Your task to perform on an android device: View the shopping cart on ebay. Add "razer blackwidow" to the cart on ebay, then select checkout. Image 0: 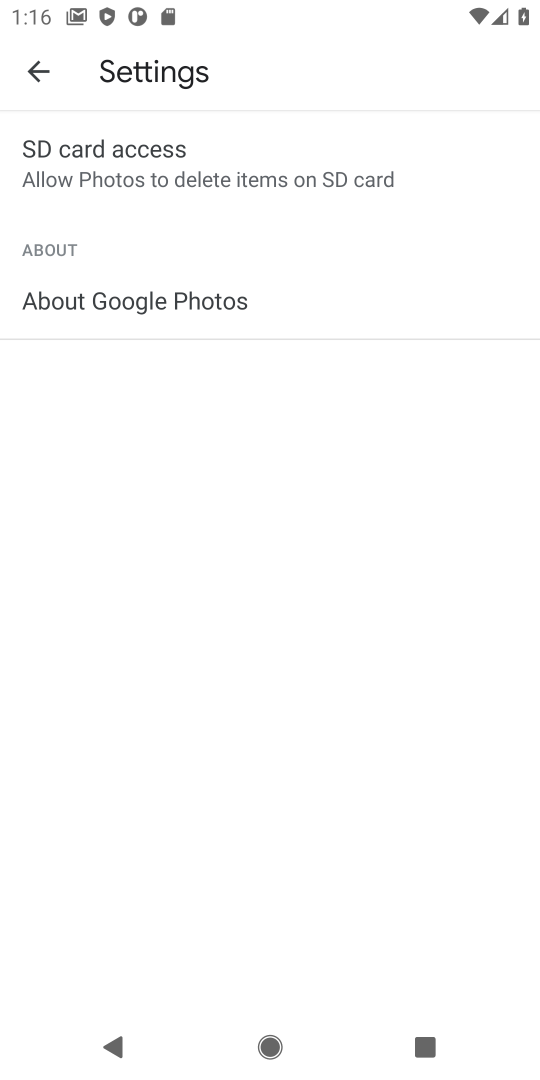
Step 0: press home button
Your task to perform on an android device: View the shopping cart on ebay. Add "razer blackwidow" to the cart on ebay, then select checkout. Image 1: 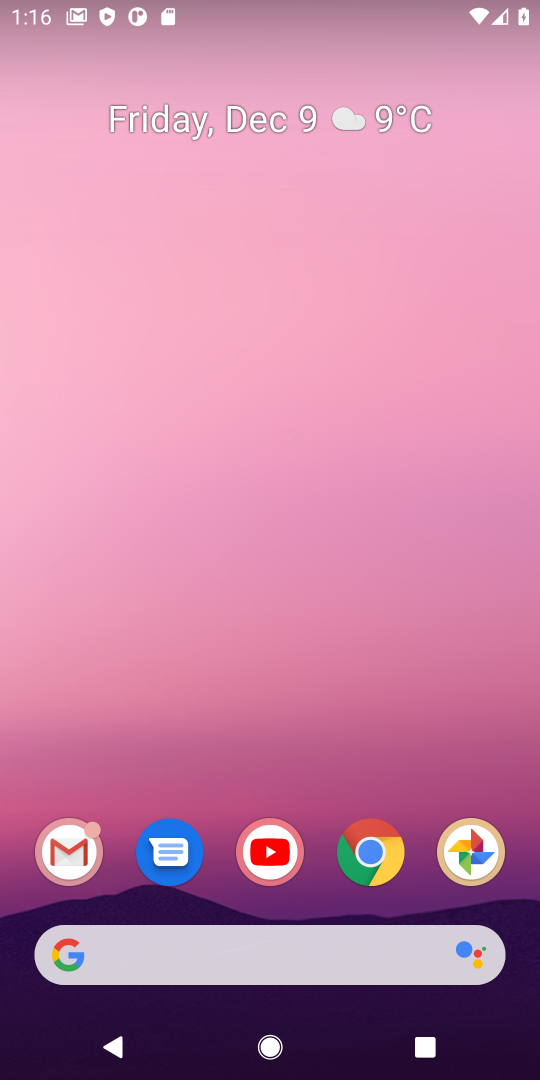
Step 1: click (372, 859)
Your task to perform on an android device: View the shopping cart on ebay. Add "razer blackwidow" to the cart on ebay, then select checkout. Image 2: 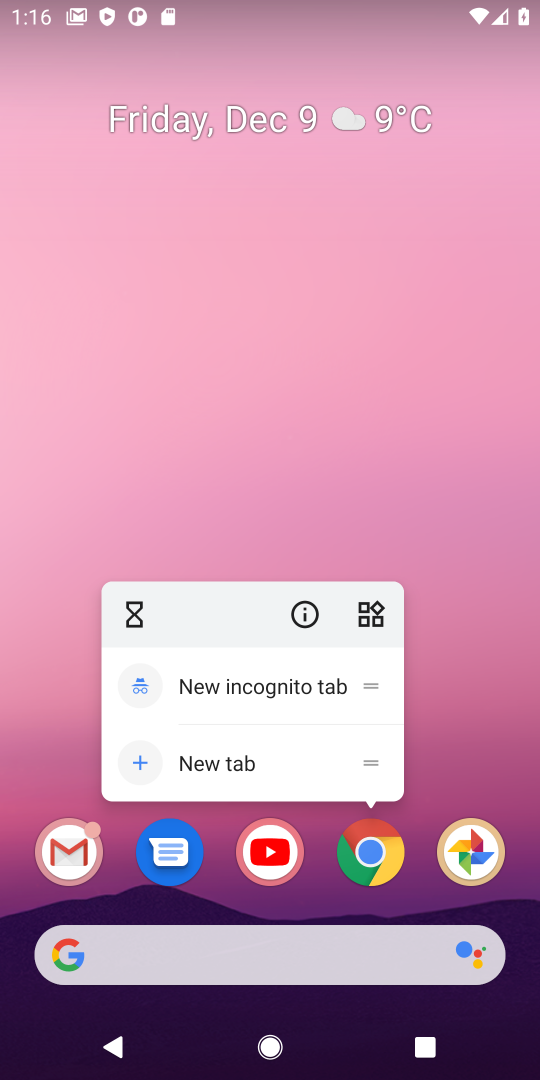
Step 2: click (372, 859)
Your task to perform on an android device: View the shopping cart on ebay. Add "razer blackwidow" to the cart on ebay, then select checkout. Image 3: 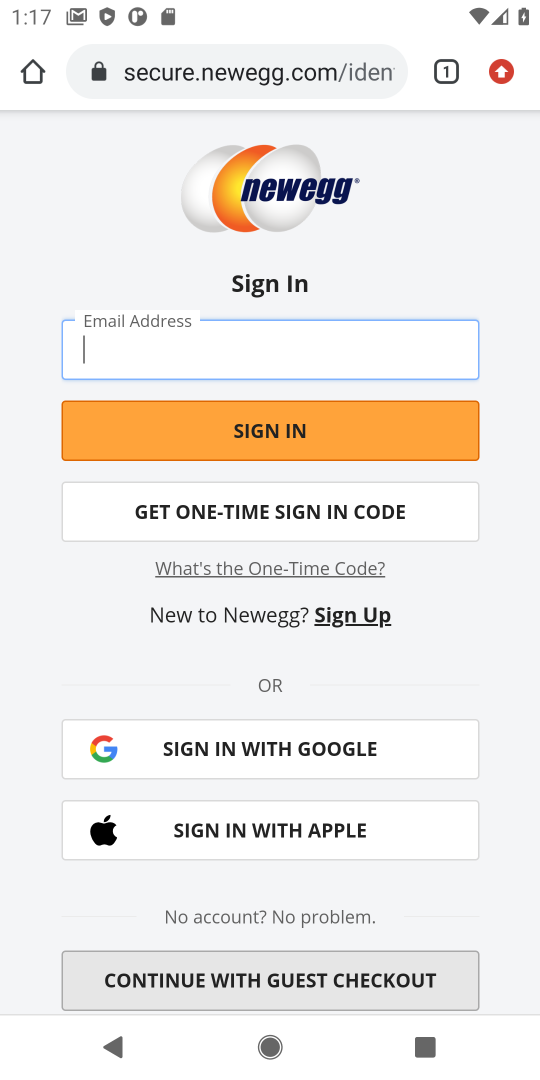
Step 3: click (202, 88)
Your task to perform on an android device: View the shopping cart on ebay. Add "razer blackwidow" to the cart on ebay, then select checkout. Image 4: 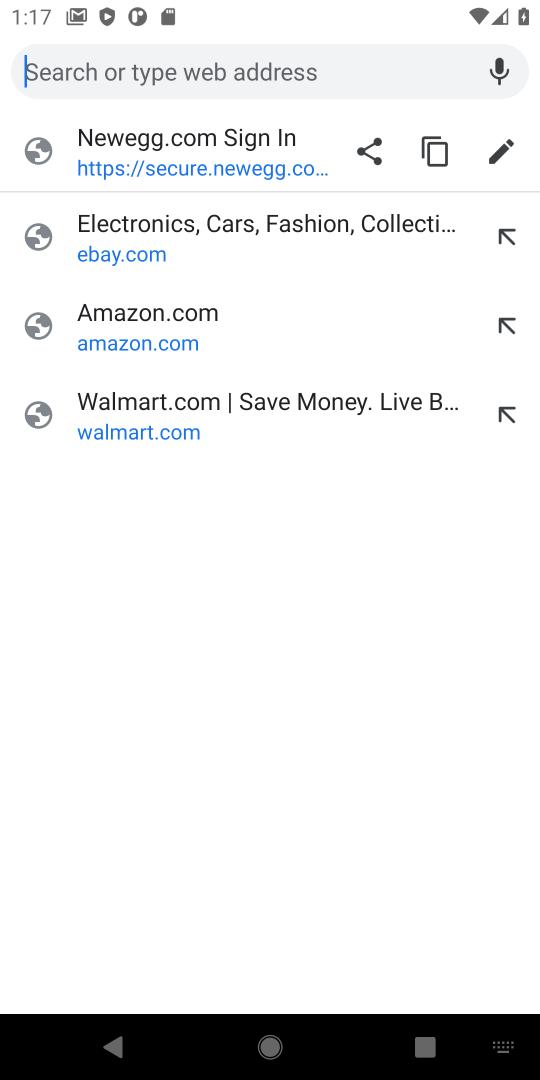
Step 4: type "ebay"
Your task to perform on an android device: View the shopping cart on ebay. Add "razer blackwidow" to the cart on ebay, then select checkout. Image 5: 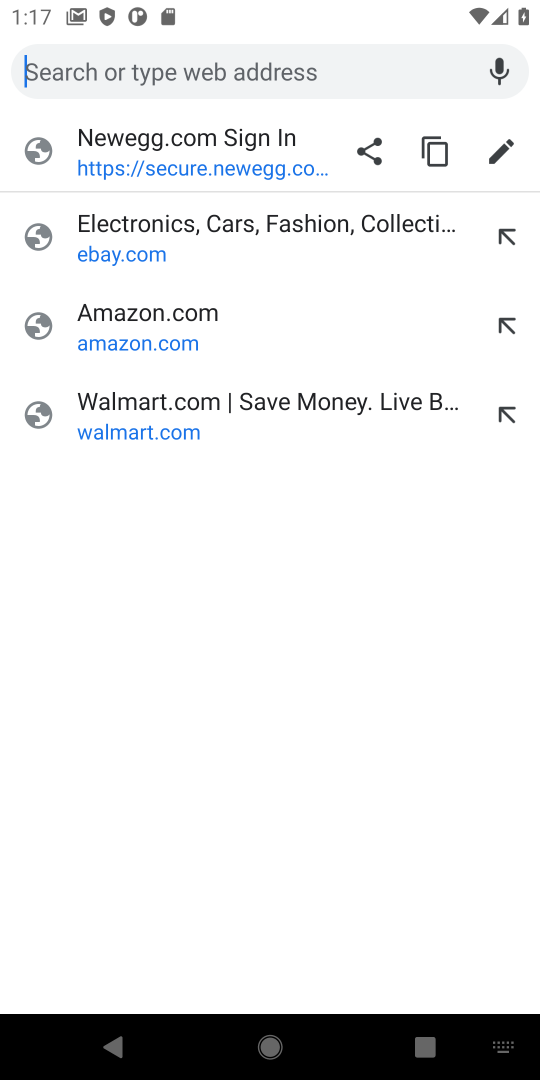
Step 5: click (137, 255)
Your task to perform on an android device: View the shopping cart on ebay. Add "razer blackwidow" to the cart on ebay, then select checkout. Image 6: 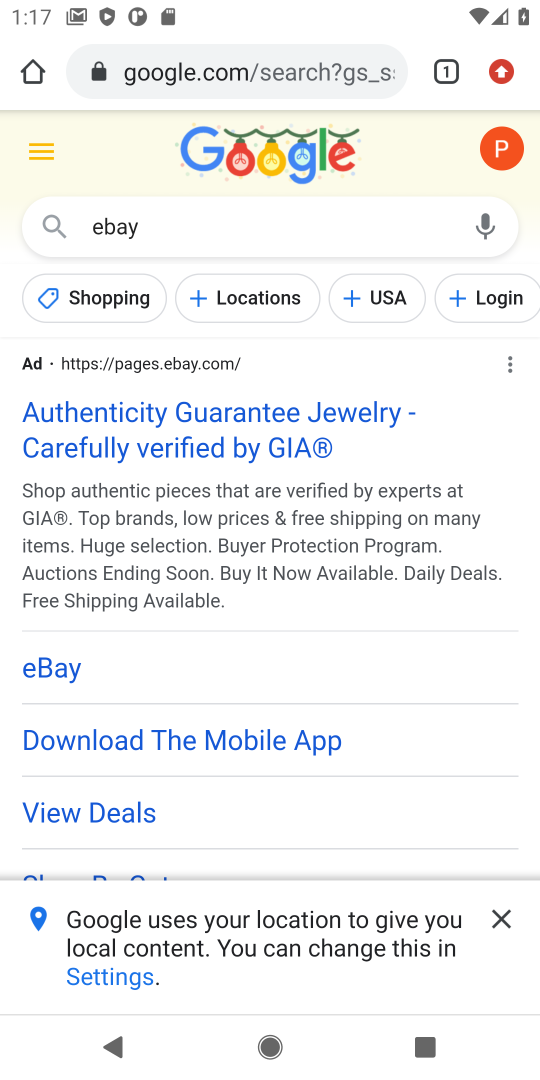
Step 6: drag from (336, 718) to (354, 365)
Your task to perform on an android device: View the shopping cart on ebay. Add "razer blackwidow" to the cart on ebay, then select checkout. Image 7: 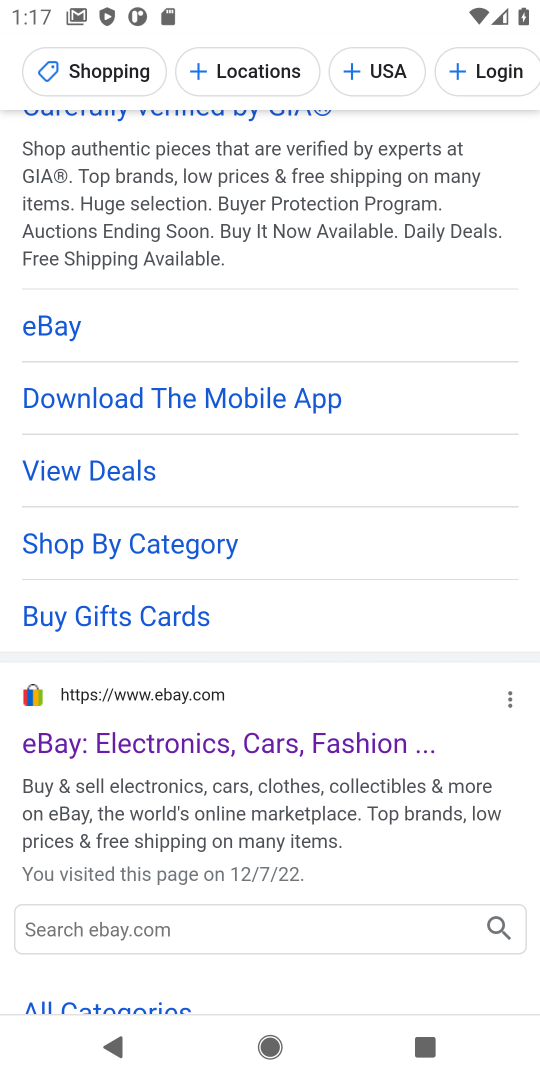
Step 7: click (228, 751)
Your task to perform on an android device: View the shopping cart on ebay. Add "razer blackwidow" to the cart on ebay, then select checkout. Image 8: 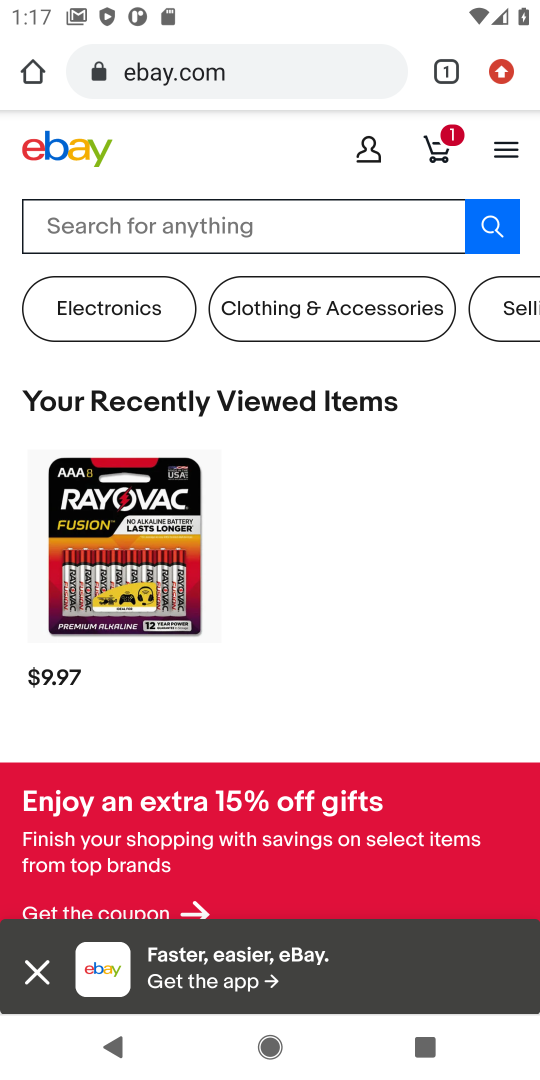
Step 8: drag from (406, 635) to (445, 207)
Your task to perform on an android device: View the shopping cart on ebay. Add "razer blackwidow" to the cart on ebay, then select checkout. Image 9: 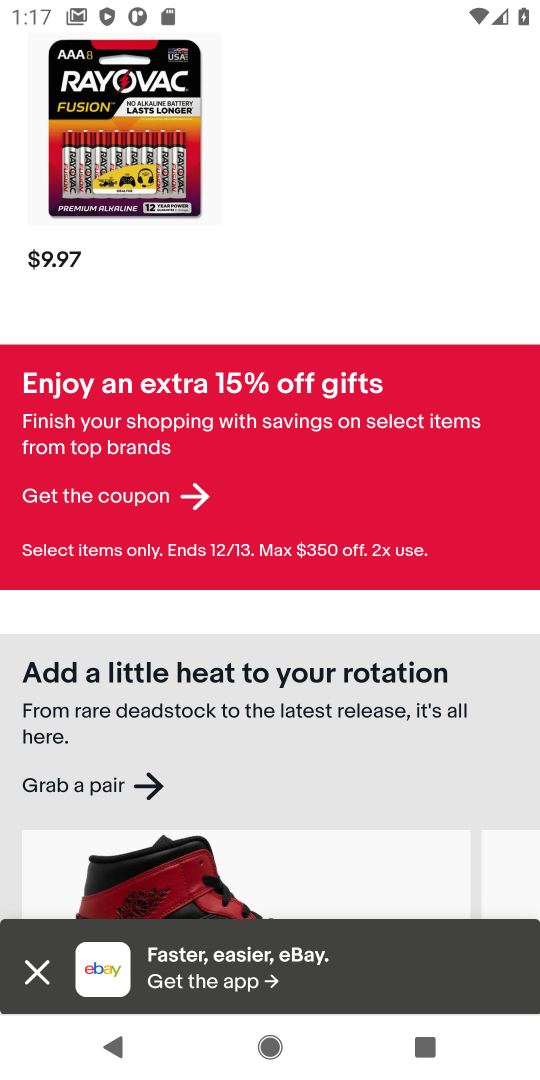
Step 9: drag from (396, 308) to (362, 789)
Your task to perform on an android device: View the shopping cart on ebay. Add "razer blackwidow" to the cart on ebay, then select checkout. Image 10: 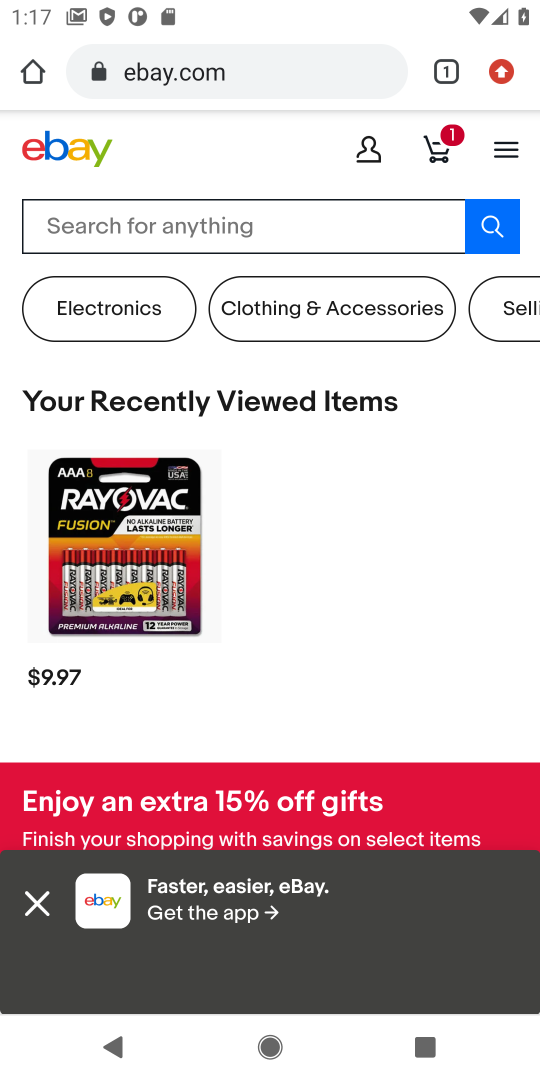
Step 10: click (146, 230)
Your task to perform on an android device: View the shopping cart on ebay. Add "razer blackwidow" to the cart on ebay, then select checkout. Image 11: 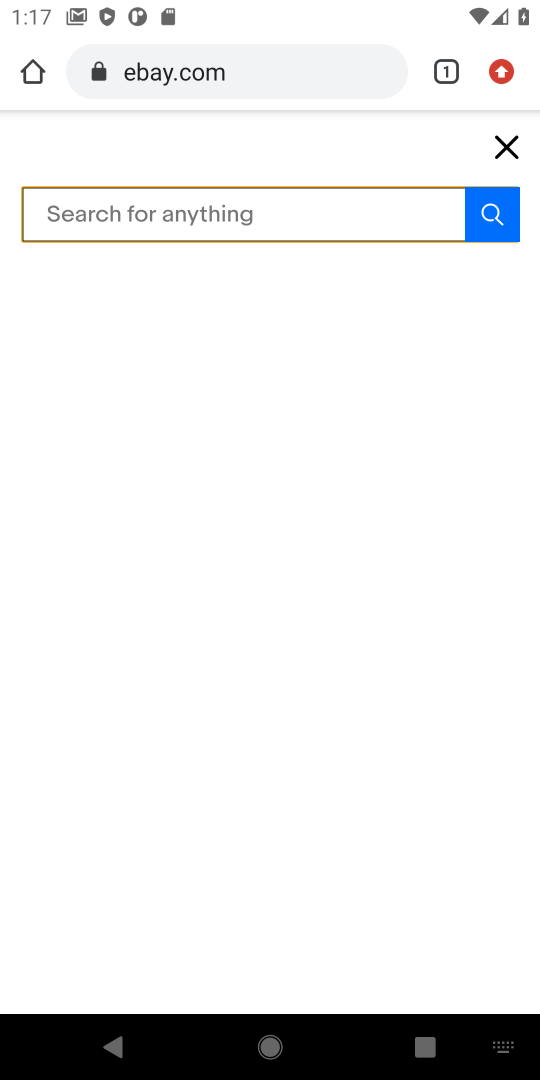
Step 11: type "razer blackwidow"
Your task to perform on an android device: View the shopping cart on ebay. Add "razer blackwidow" to the cart on ebay, then select checkout. Image 12: 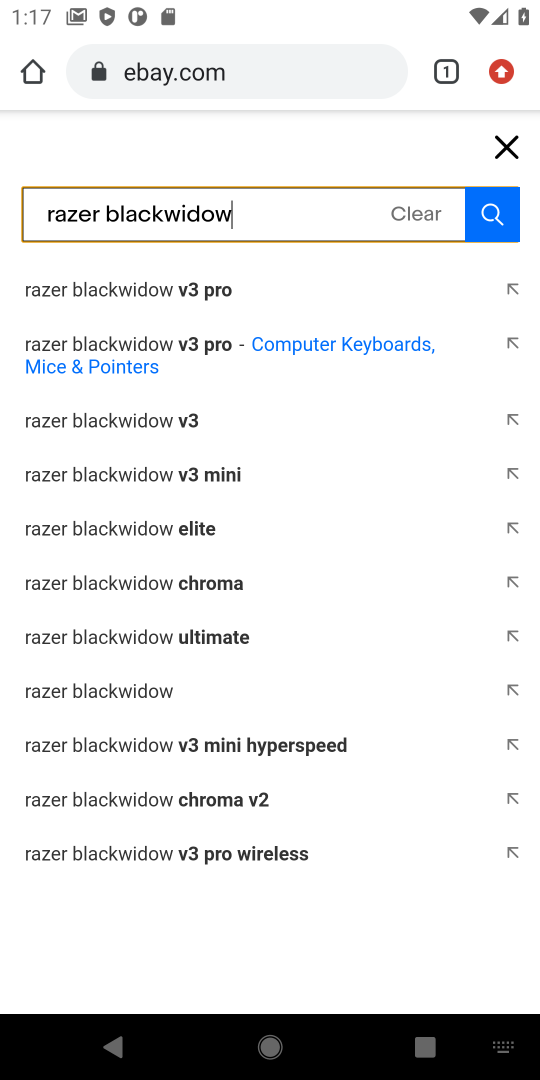
Step 12: click (492, 220)
Your task to perform on an android device: View the shopping cart on ebay. Add "razer blackwidow" to the cart on ebay, then select checkout. Image 13: 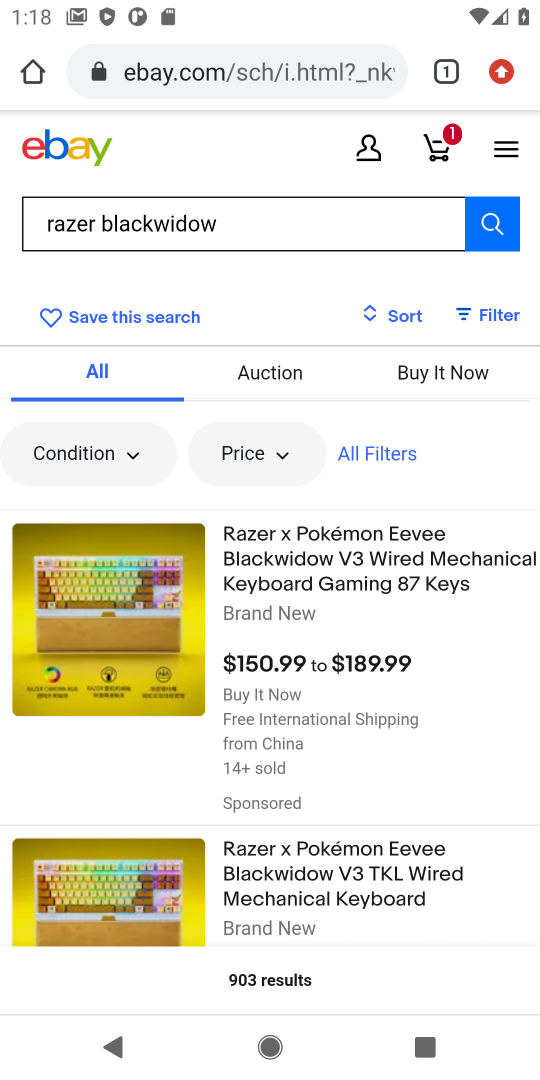
Step 13: click (341, 568)
Your task to perform on an android device: View the shopping cart on ebay. Add "razer blackwidow" to the cart on ebay, then select checkout. Image 14: 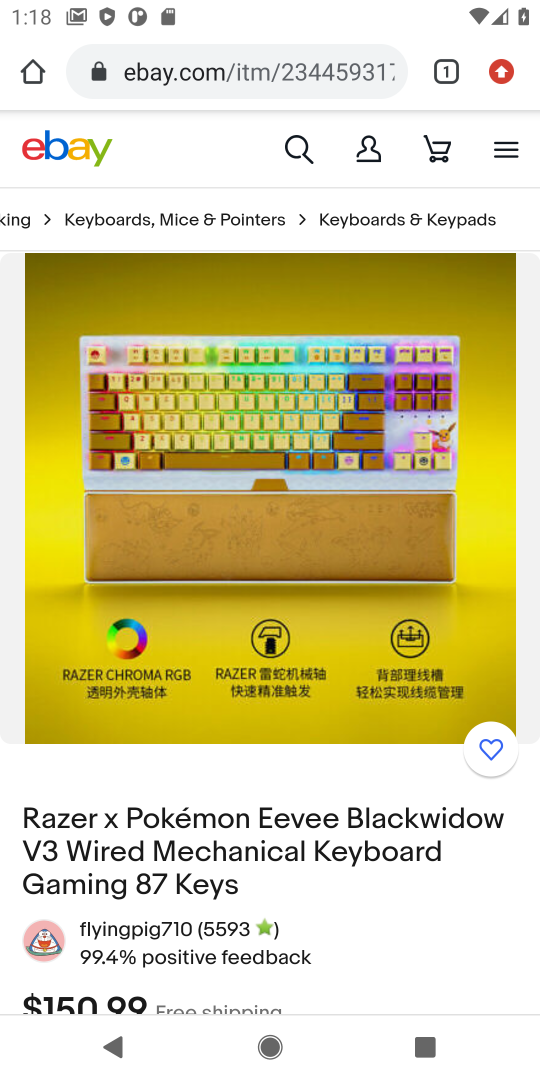
Step 14: drag from (298, 867) to (394, 331)
Your task to perform on an android device: View the shopping cart on ebay. Add "razer blackwidow" to the cart on ebay, then select checkout. Image 15: 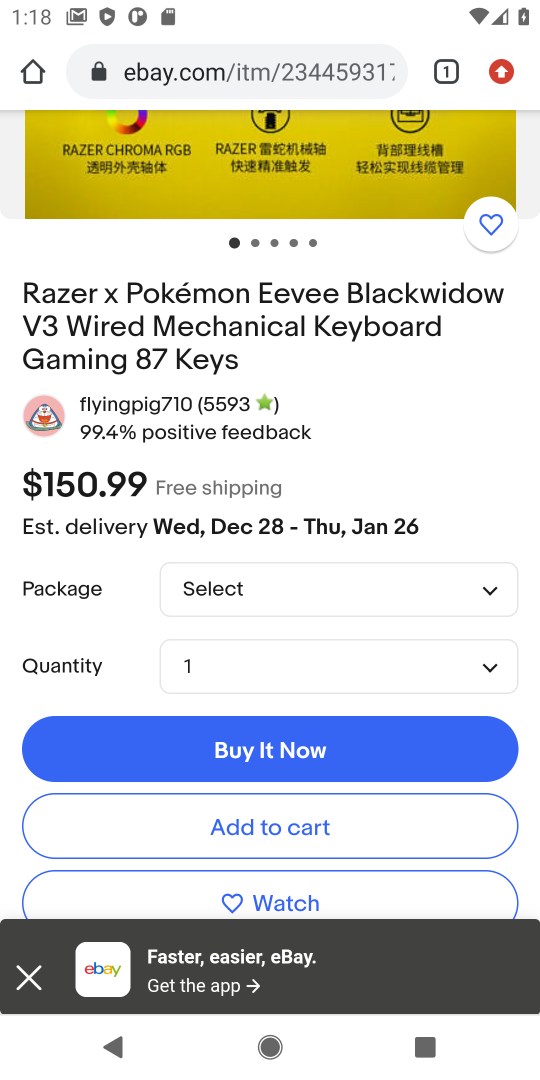
Step 15: click (280, 831)
Your task to perform on an android device: View the shopping cart on ebay. Add "razer blackwidow" to the cart on ebay, then select checkout. Image 16: 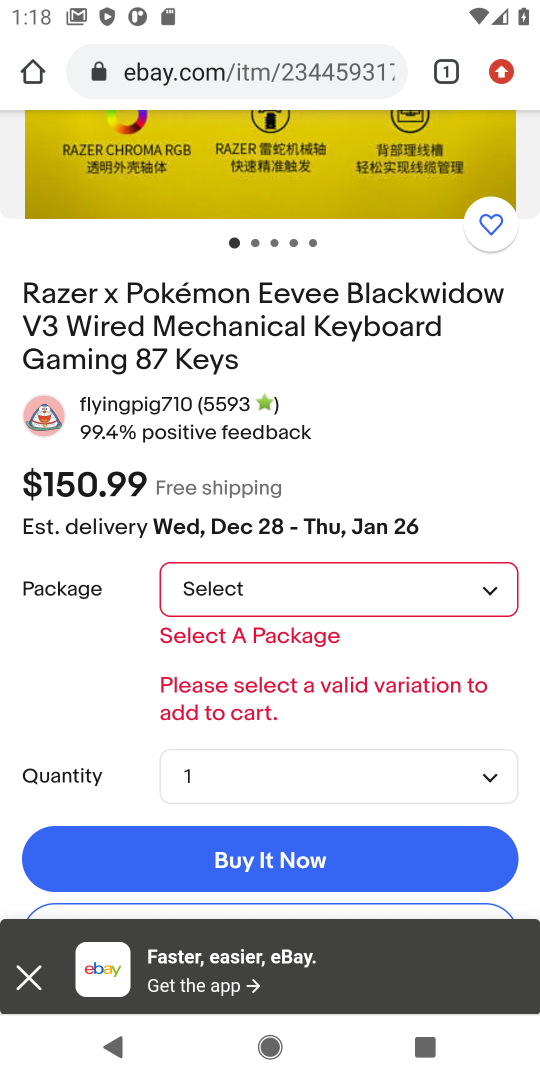
Step 16: click (306, 588)
Your task to perform on an android device: View the shopping cart on ebay. Add "razer blackwidow" to the cart on ebay, then select checkout. Image 17: 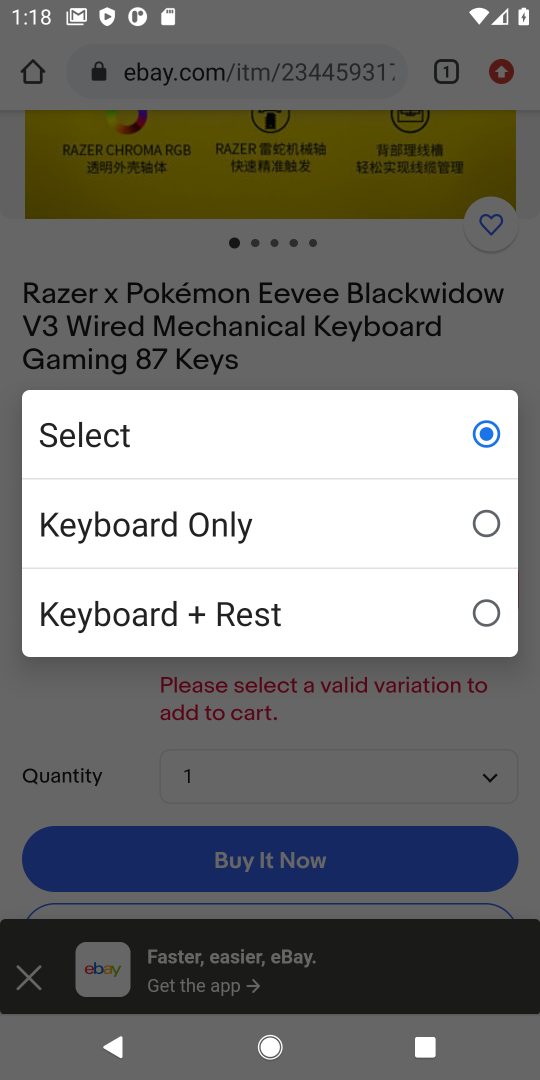
Step 17: click (337, 524)
Your task to perform on an android device: View the shopping cart on ebay. Add "razer blackwidow" to the cart on ebay, then select checkout. Image 18: 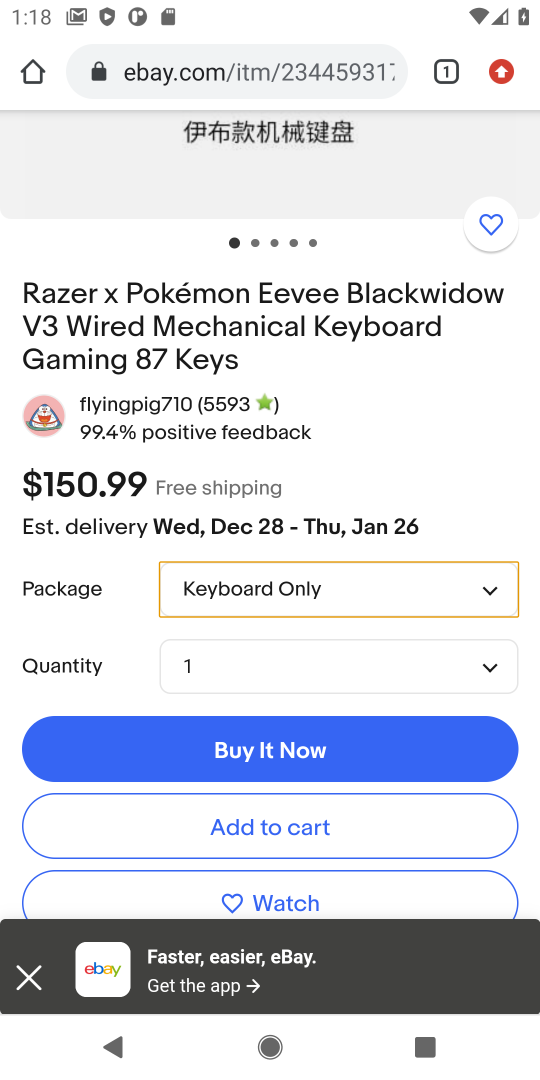
Step 18: click (309, 829)
Your task to perform on an android device: View the shopping cart on ebay. Add "razer blackwidow" to the cart on ebay, then select checkout. Image 19: 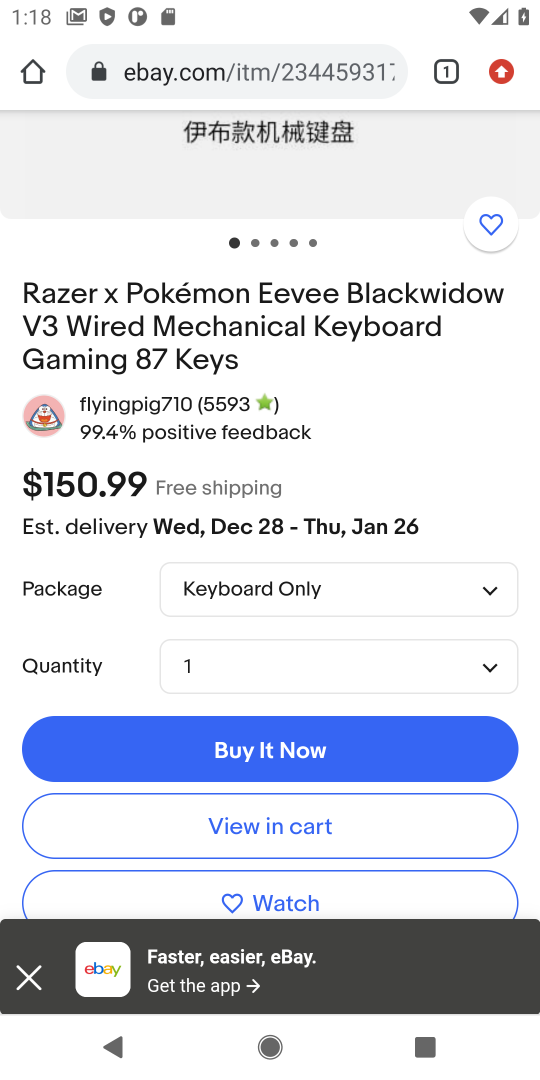
Step 19: click (298, 831)
Your task to perform on an android device: View the shopping cart on ebay. Add "razer blackwidow" to the cart on ebay, then select checkout. Image 20: 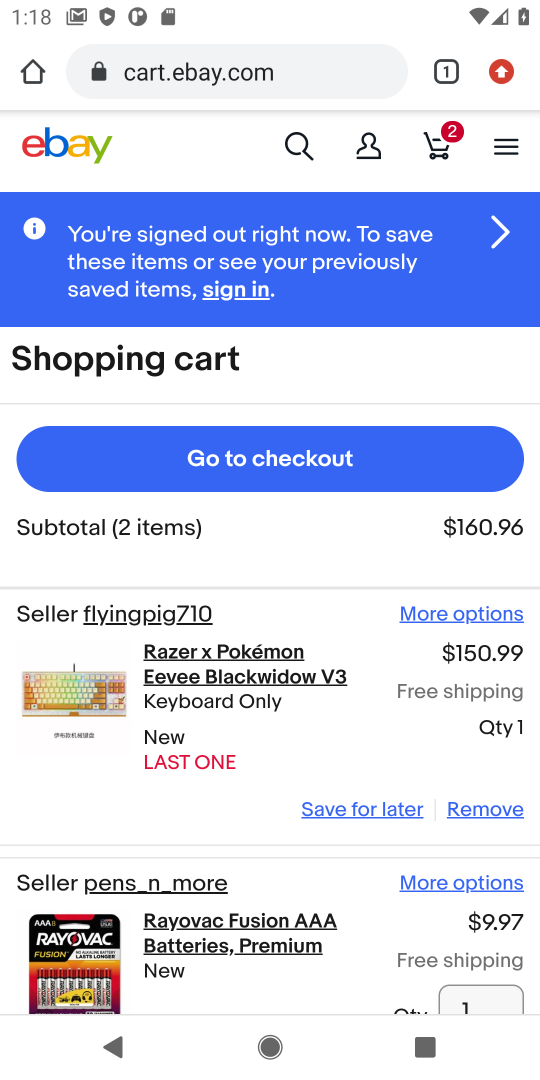
Step 20: click (338, 457)
Your task to perform on an android device: View the shopping cart on ebay. Add "razer blackwidow" to the cart on ebay, then select checkout. Image 21: 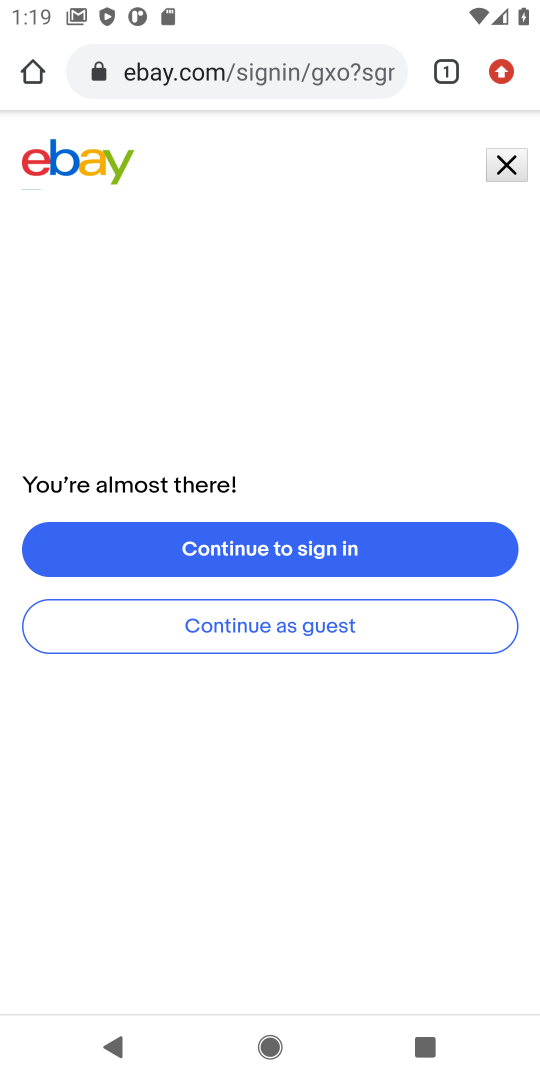
Step 21: click (336, 558)
Your task to perform on an android device: View the shopping cart on ebay. Add "razer blackwidow" to the cart on ebay, then select checkout. Image 22: 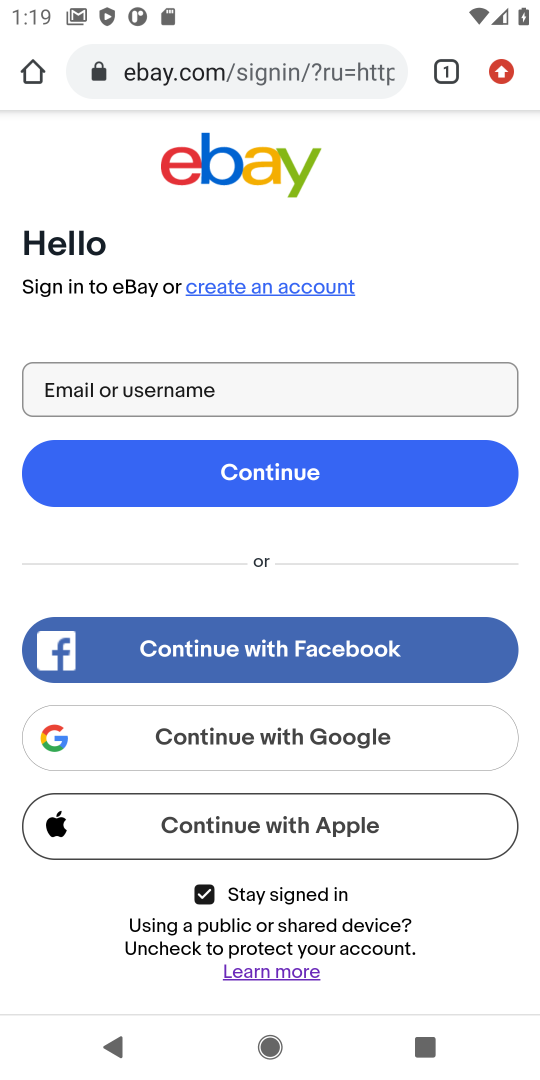
Step 22: task complete